Your task to perform on an android device: move a message to another label in the gmail app Image 0: 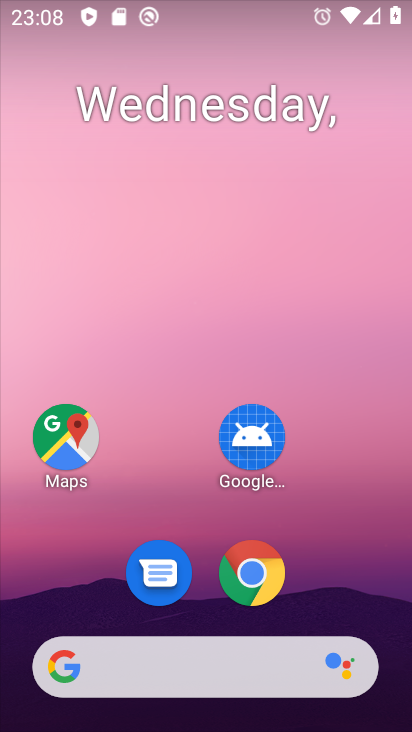
Step 0: drag from (171, 498) to (220, 11)
Your task to perform on an android device: move a message to another label in the gmail app Image 1: 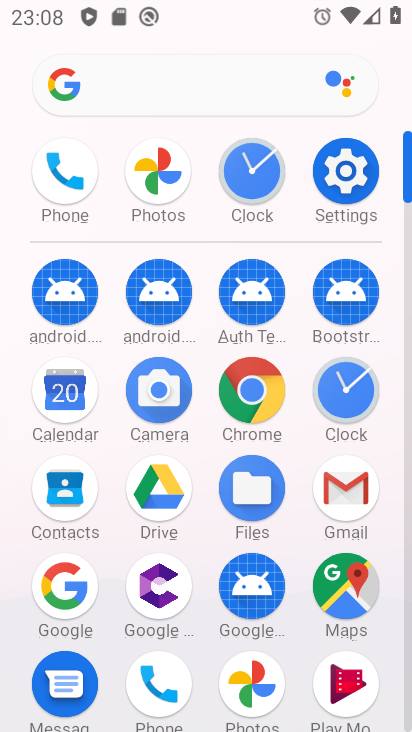
Step 1: click (343, 489)
Your task to perform on an android device: move a message to another label in the gmail app Image 2: 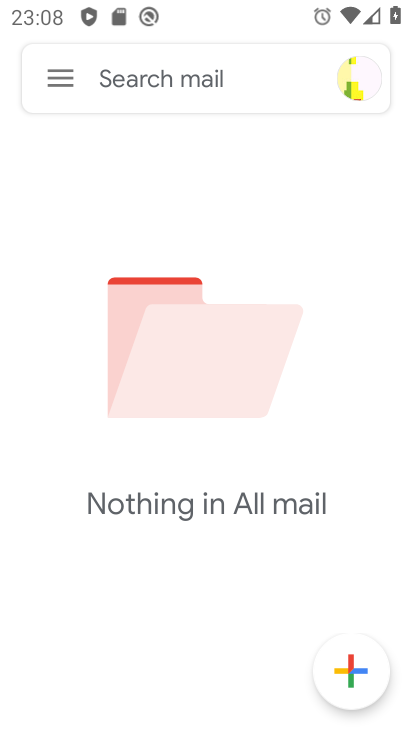
Step 2: click (61, 80)
Your task to perform on an android device: move a message to another label in the gmail app Image 3: 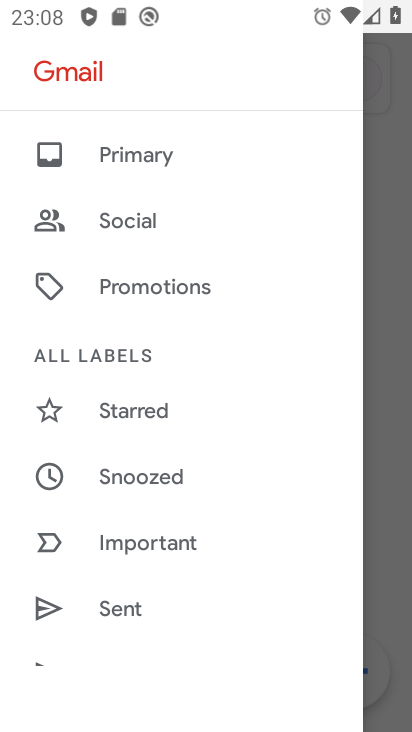
Step 3: drag from (195, 410) to (200, 236)
Your task to perform on an android device: move a message to another label in the gmail app Image 4: 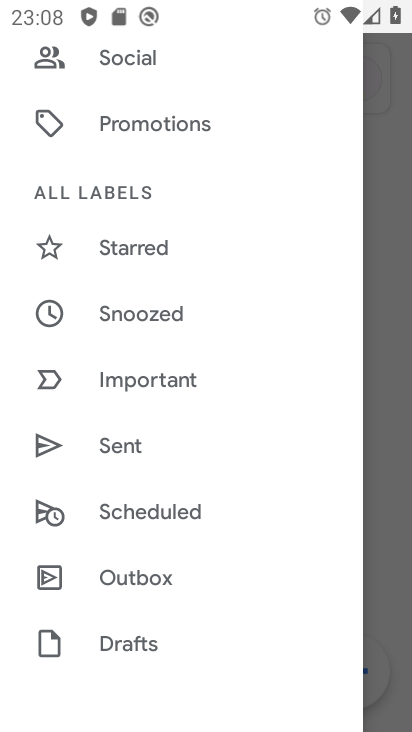
Step 4: drag from (211, 445) to (226, 318)
Your task to perform on an android device: move a message to another label in the gmail app Image 5: 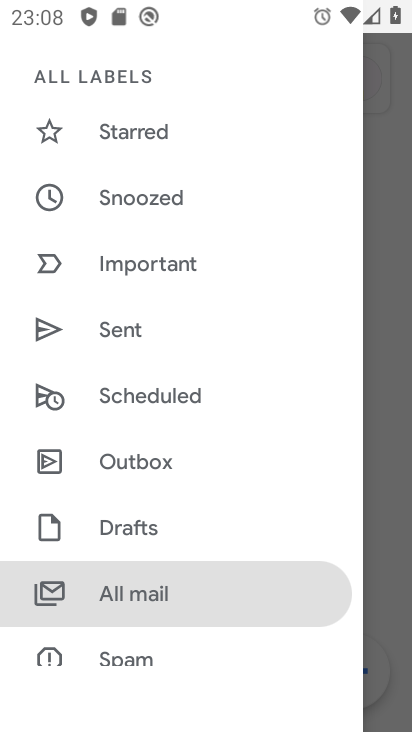
Step 5: drag from (219, 485) to (224, 334)
Your task to perform on an android device: move a message to another label in the gmail app Image 6: 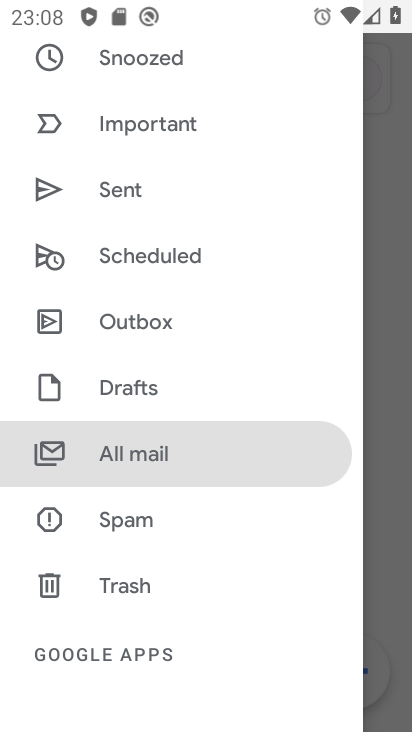
Step 6: drag from (196, 577) to (229, 362)
Your task to perform on an android device: move a message to another label in the gmail app Image 7: 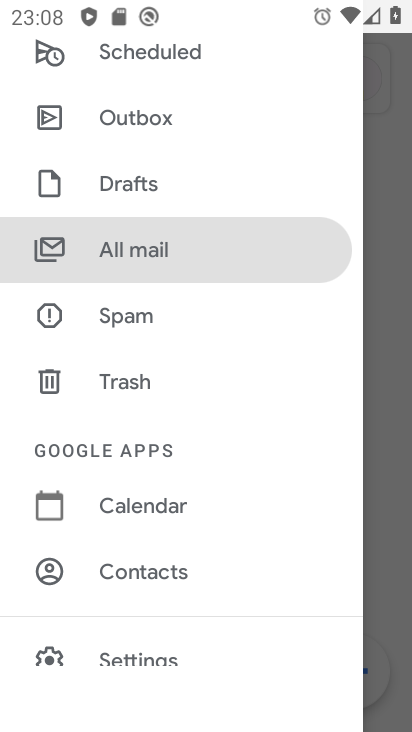
Step 7: drag from (201, 525) to (199, 375)
Your task to perform on an android device: move a message to another label in the gmail app Image 8: 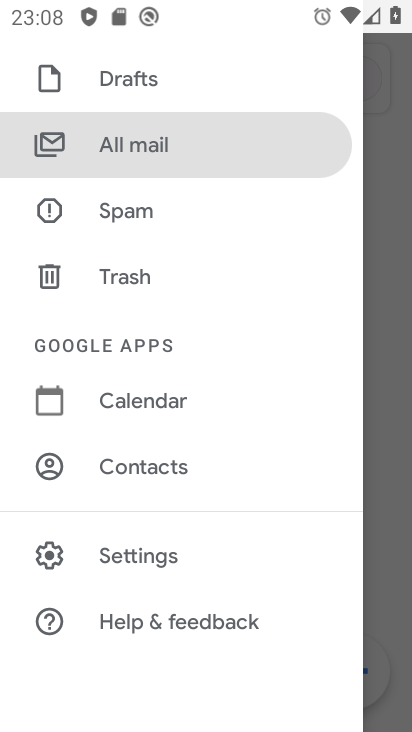
Step 8: drag from (205, 247) to (251, 437)
Your task to perform on an android device: move a message to another label in the gmail app Image 9: 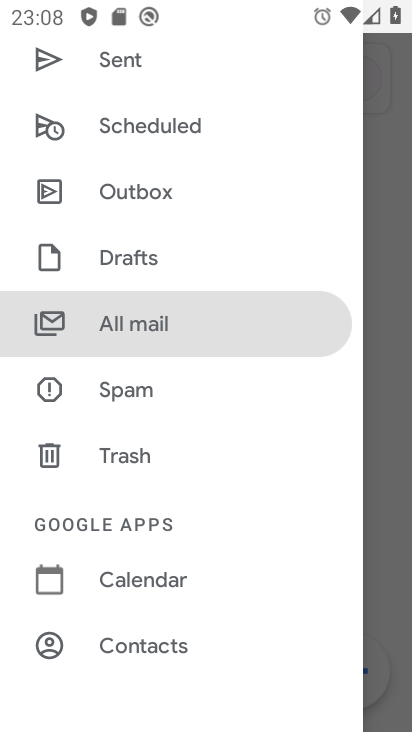
Step 9: click (159, 319)
Your task to perform on an android device: move a message to another label in the gmail app Image 10: 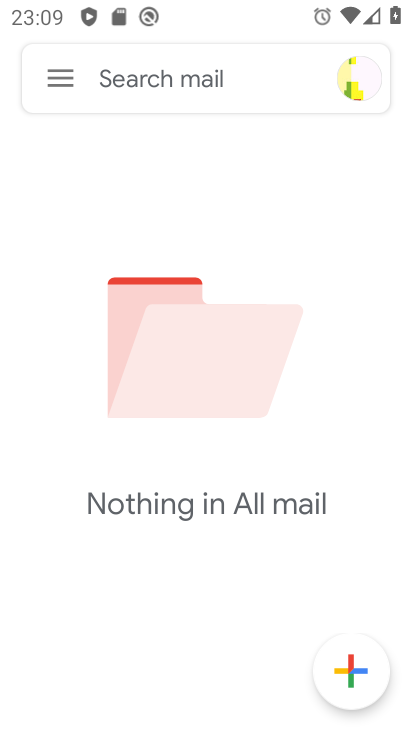
Step 10: task complete